Your task to perform on an android device: What's the weather? Image 0: 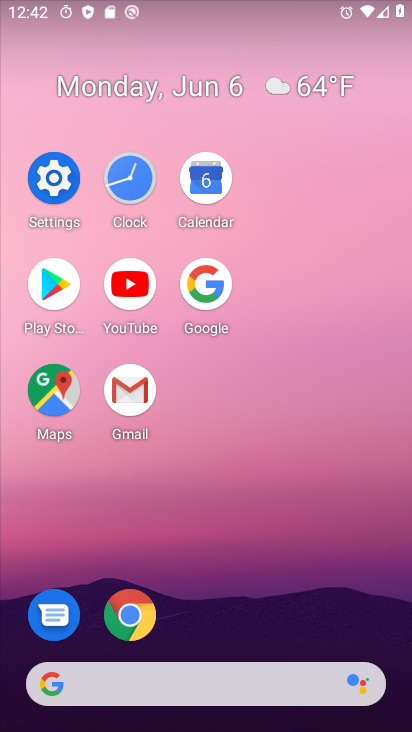
Step 0: click (200, 271)
Your task to perform on an android device: What's the weather? Image 1: 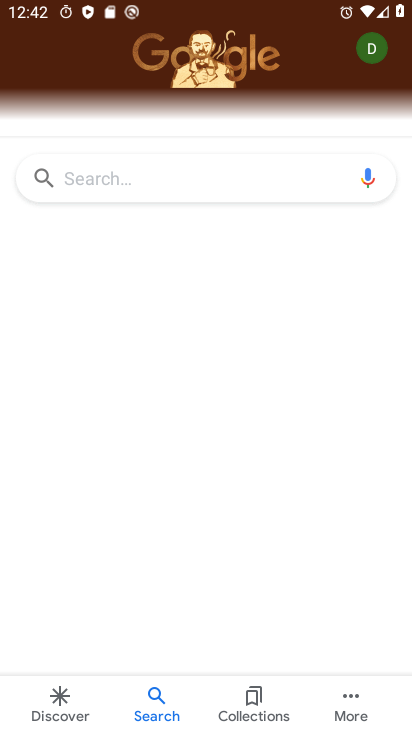
Step 1: click (128, 183)
Your task to perform on an android device: What's the weather? Image 2: 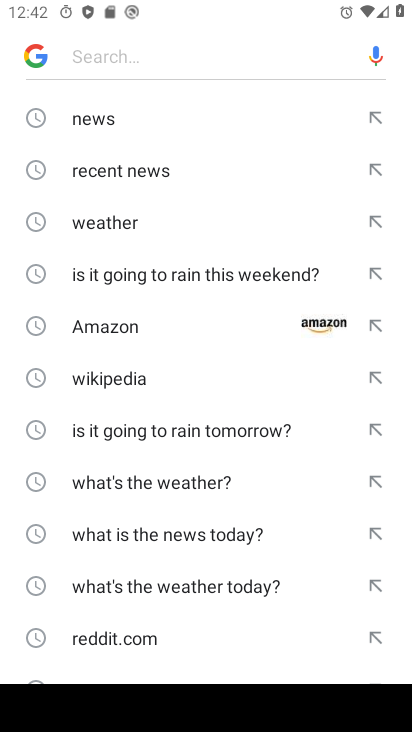
Step 2: click (155, 212)
Your task to perform on an android device: What's the weather? Image 3: 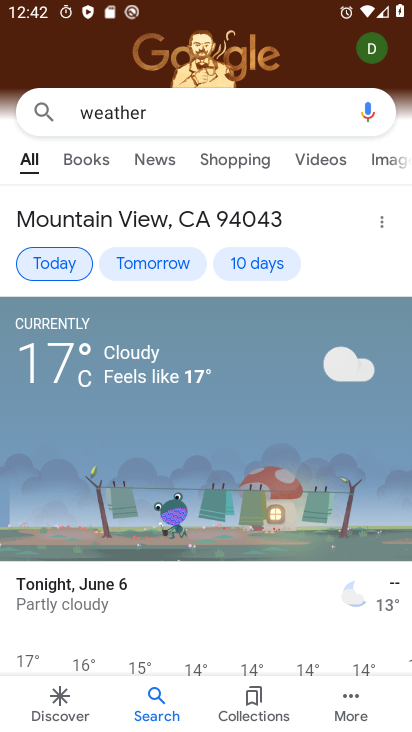
Step 3: task complete